Your task to perform on an android device: Open the calendar app, open the side menu, and click the "Day" option Image 0: 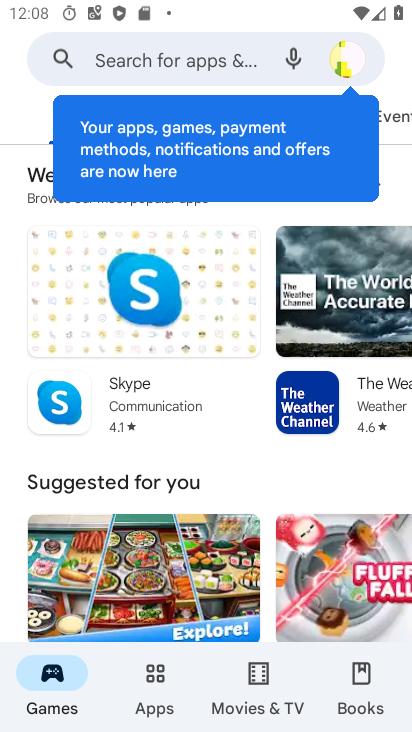
Step 0: press home button
Your task to perform on an android device: Open the calendar app, open the side menu, and click the "Day" option Image 1: 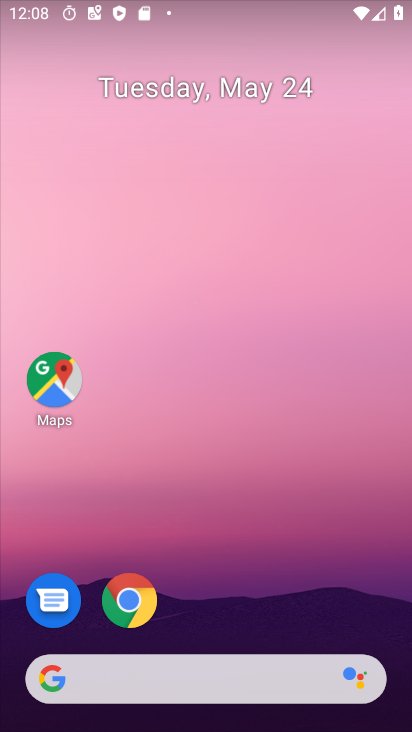
Step 1: drag from (234, 542) to (224, 109)
Your task to perform on an android device: Open the calendar app, open the side menu, and click the "Day" option Image 2: 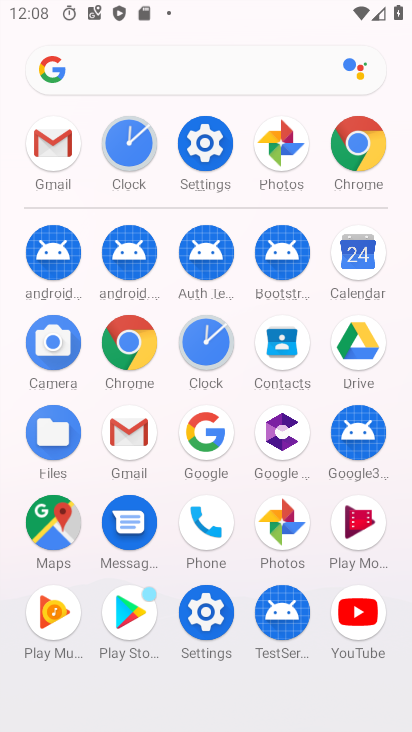
Step 2: click (356, 240)
Your task to perform on an android device: Open the calendar app, open the side menu, and click the "Day" option Image 3: 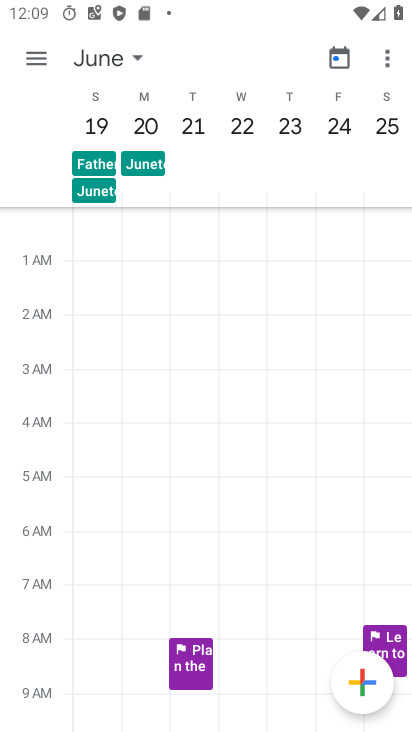
Step 3: click (41, 63)
Your task to perform on an android device: Open the calendar app, open the side menu, and click the "Day" option Image 4: 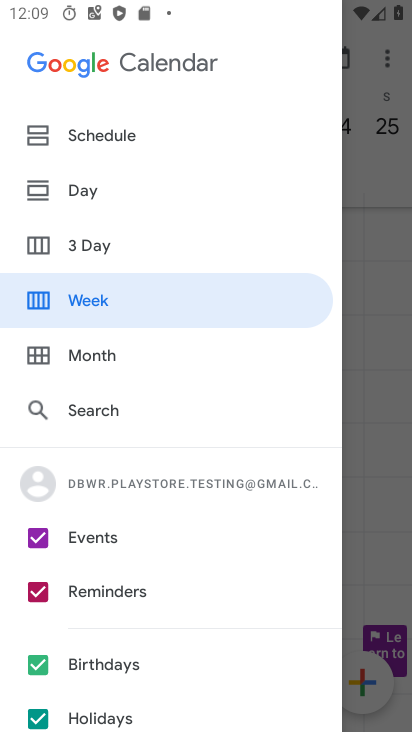
Step 4: click (90, 186)
Your task to perform on an android device: Open the calendar app, open the side menu, and click the "Day" option Image 5: 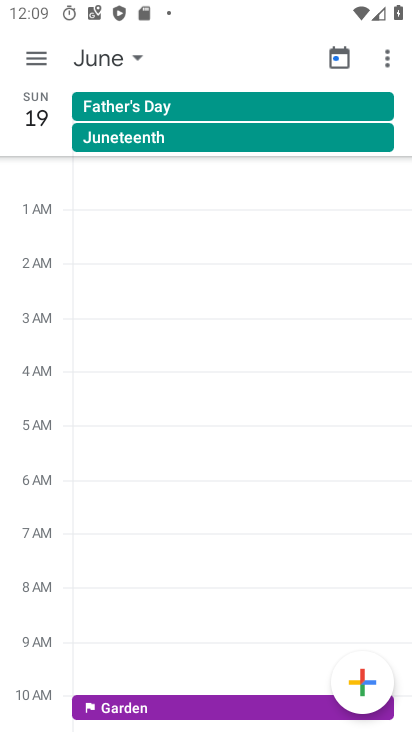
Step 5: task complete